Your task to perform on an android device: turn on airplane mode Image 0: 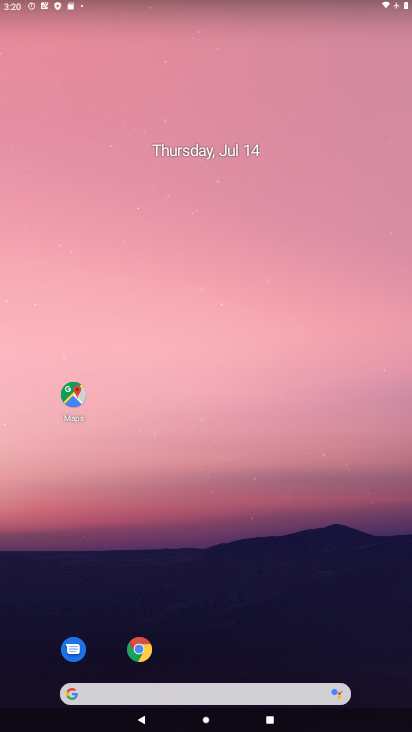
Step 0: drag from (220, 599) to (219, 0)
Your task to perform on an android device: turn on airplane mode Image 1: 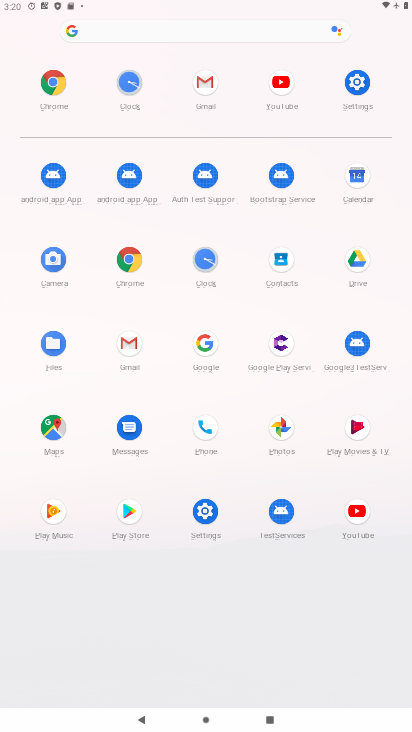
Step 1: click (202, 514)
Your task to perform on an android device: turn on airplane mode Image 2: 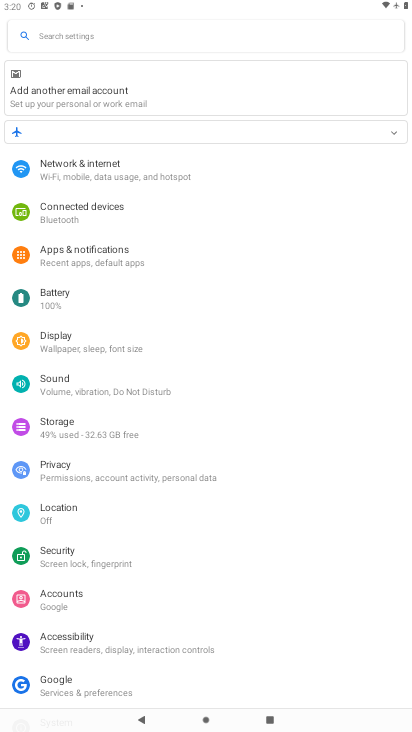
Step 2: click (124, 167)
Your task to perform on an android device: turn on airplane mode Image 3: 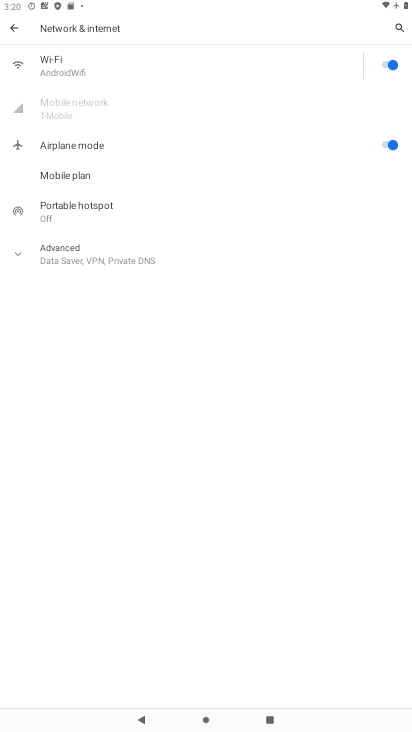
Step 3: task complete